Your task to perform on an android device: Show me popular videos on Youtube Image 0: 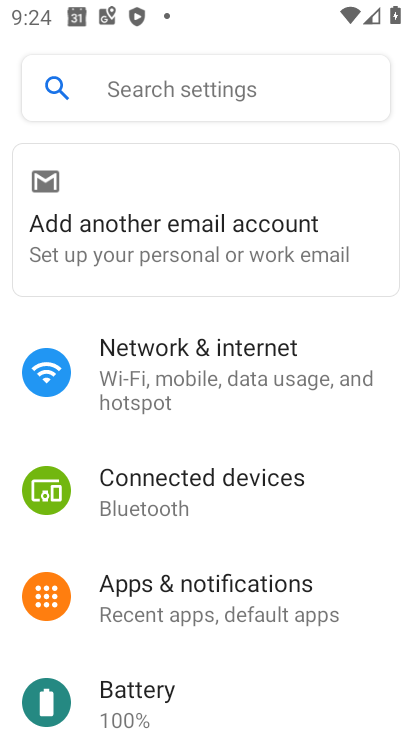
Step 0: press home button
Your task to perform on an android device: Show me popular videos on Youtube Image 1: 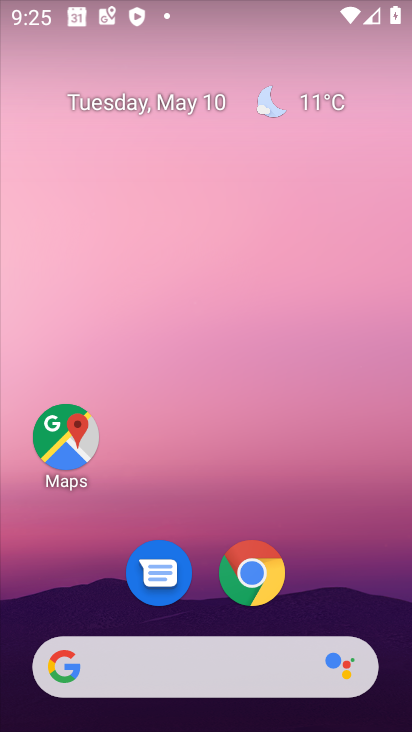
Step 1: drag from (359, 625) to (393, 6)
Your task to perform on an android device: Show me popular videos on Youtube Image 2: 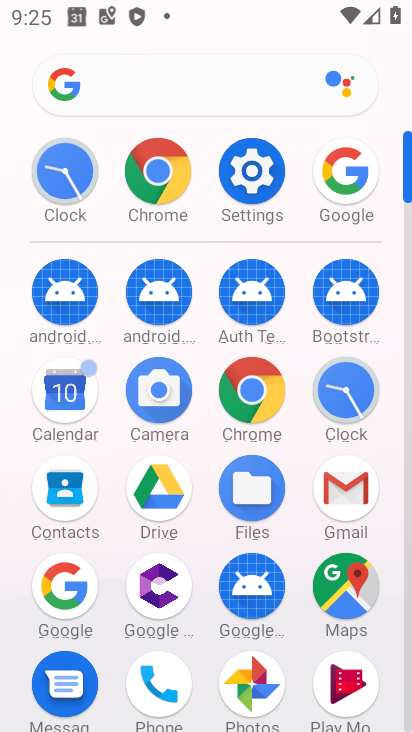
Step 2: drag from (409, 623) to (406, 575)
Your task to perform on an android device: Show me popular videos on Youtube Image 3: 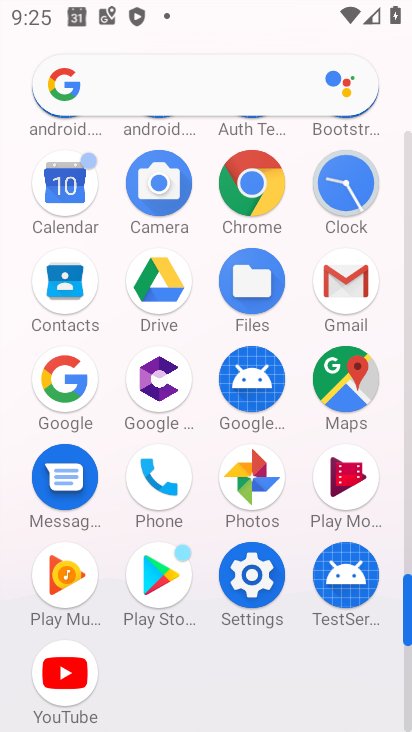
Step 3: click (62, 670)
Your task to perform on an android device: Show me popular videos on Youtube Image 4: 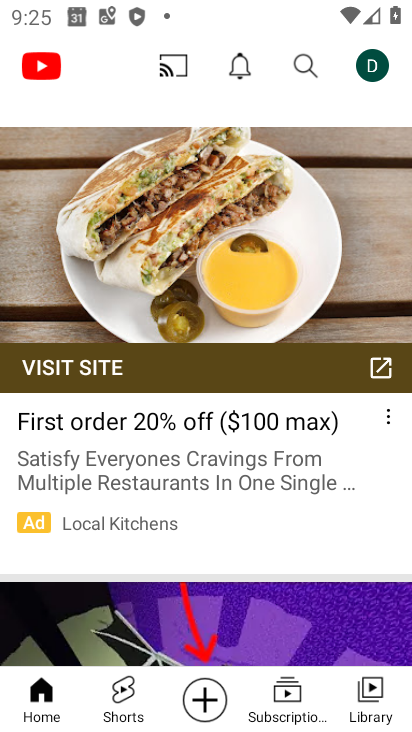
Step 4: task complete